Your task to perform on an android device: Open Google Chrome and open the bookmarks view Image 0: 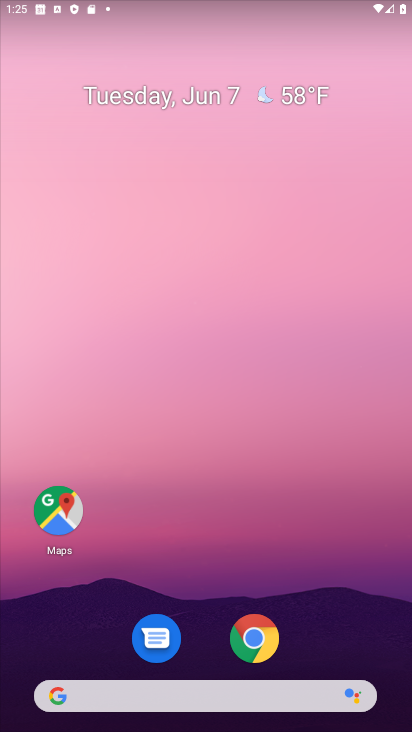
Step 0: drag from (209, 641) to (281, 339)
Your task to perform on an android device: Open Google Chrome and open the bookmarks view Image 1: 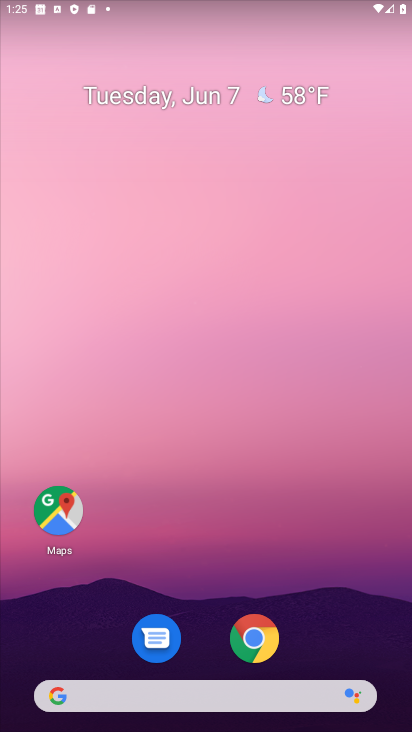
Step 1: drag from (215, 621) to (271, 299)
Your task to perform on an android device: Open Google Chrome and open the bookmarks view Image 2: 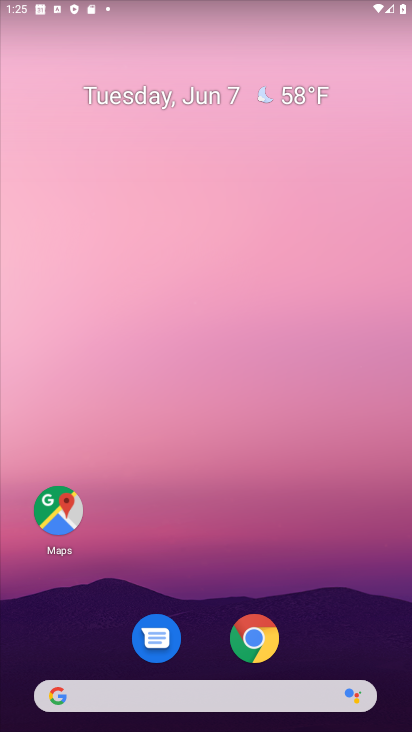
Step 2: drag from (215, 626) to (292, 130)
Your task to perform on an android device: Open Google Chrome and open the bookmarks view Image 3: 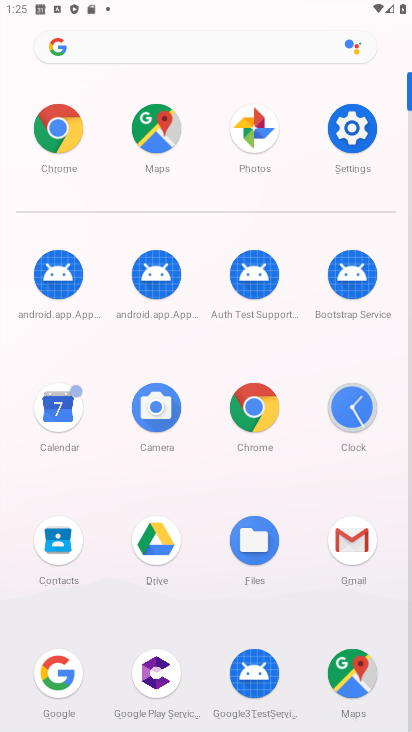
Step 3: click (353, 132)
Your task to perform on an android device: Open Google Chrome and open the bookmarks view Image 4: 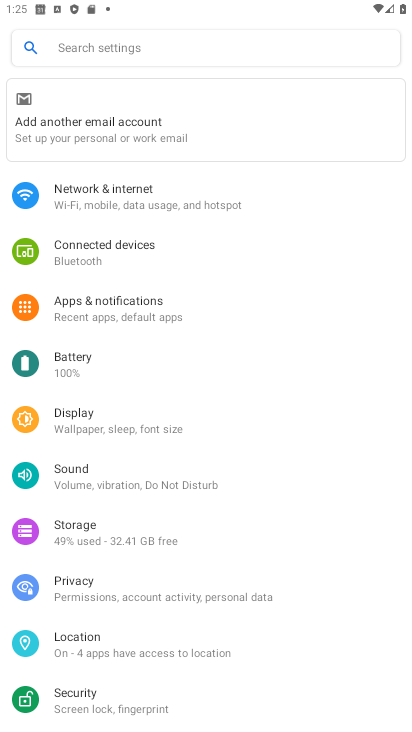
Step 4: press home button
Your task to perform on an android device: Open Google Chrome and open the bookmarks view Image 5: 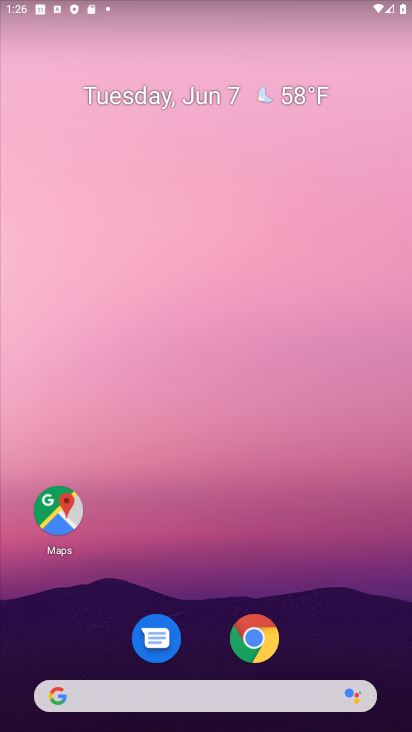
Step 5: drag from (224, 648) to (299, 164)
Your task to perform on an android device: Open Google Chrome and open the bookmarks view Image 6: 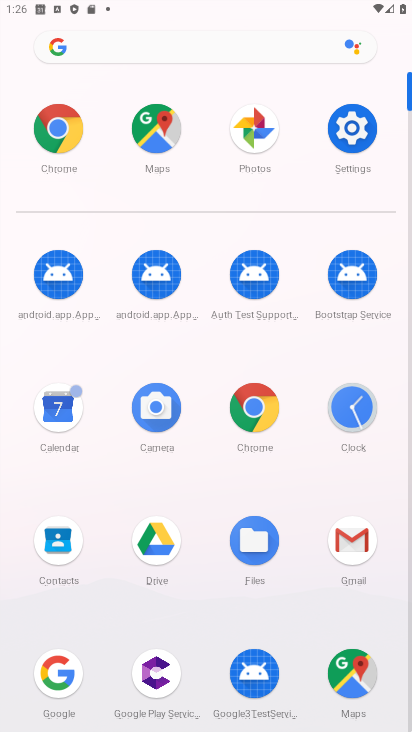
Step 6: click (55, 127)
Your task to perform on an android device: Open Google Chrome and open the bookmarks view Image 7: 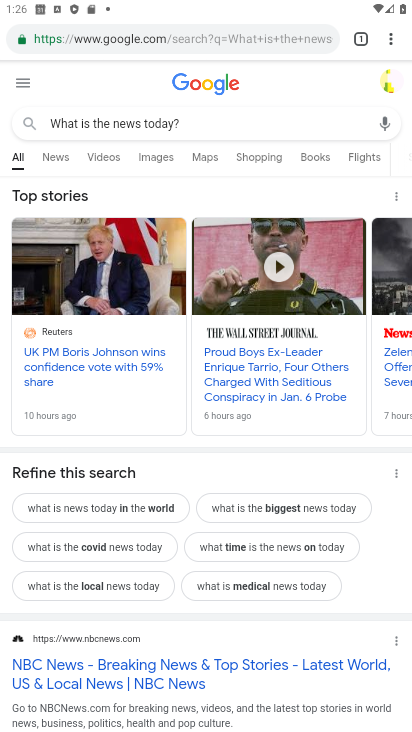
Step 7: click (389, 44)
Your task to perform on an android device: Open Google Chrome and open the bookmarks view Image 8: 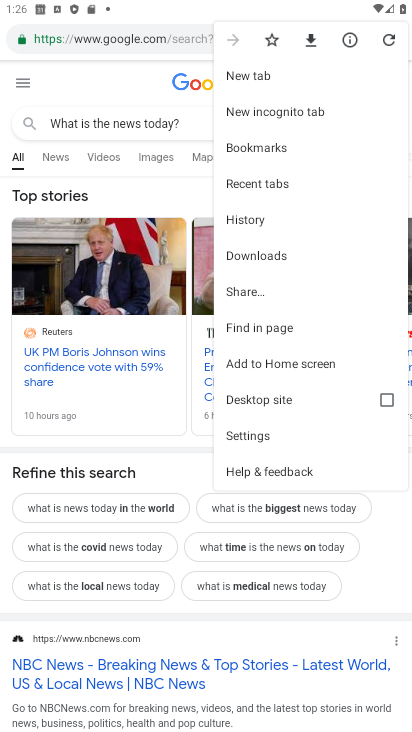
Step 8: click (259, 146)
Your task to perform on an android device: Open Google Chrome and open the bookmarks view Image 9: 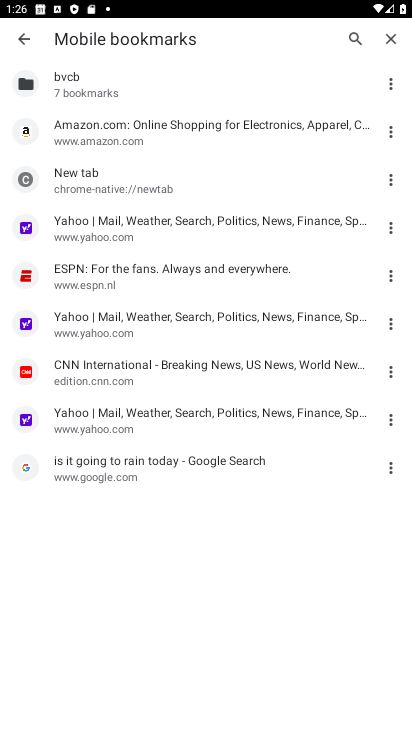
Step 9: task complete